Your task to perform on an android device: star an email in the gmail app Image 0: 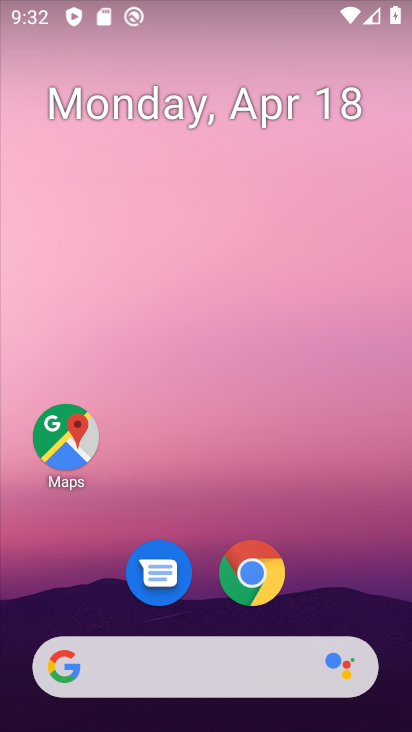
Step 0: drag from (369, 595) to (300, 54)
Your task to perform on an android device: star an email in the gmail app Image 1: 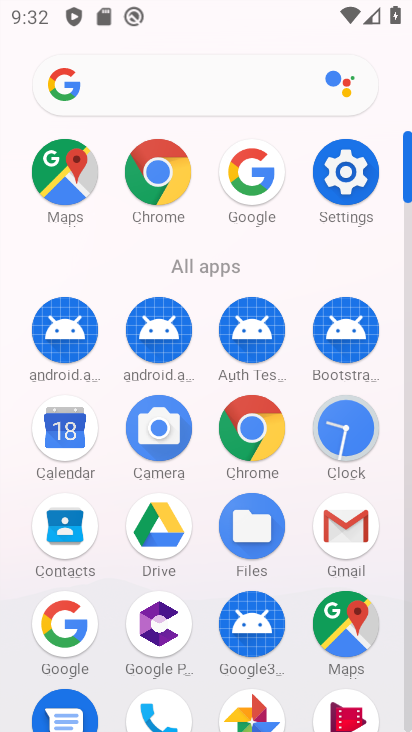
Step 1: click (346, 526)
Your task to perform on an android device: star an email in the gmail app Image 2: 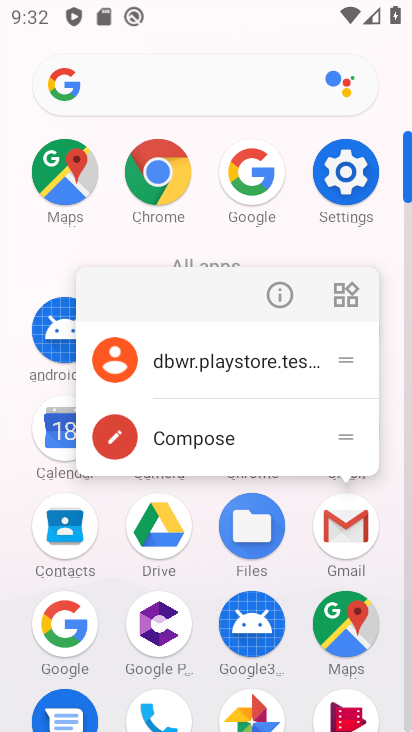
Step 2: click (343, 513)
Your task to perform on an android device: star an email in the gmail app Image 3: 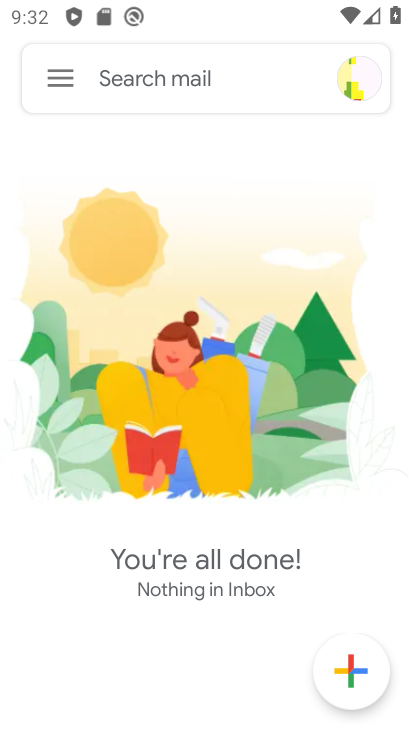
Step 3: task complete